Your task to perform on an android device: Open ESPN.com Image 0: 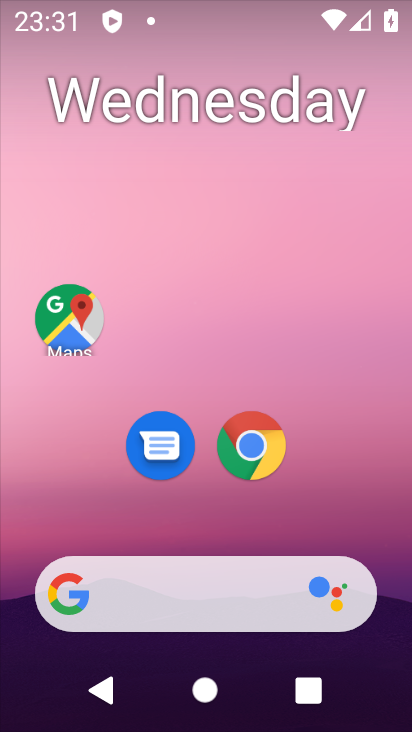
Step 0: click (251, 446)
Your task to perform on an android device: Open ESPN.com Image 1: 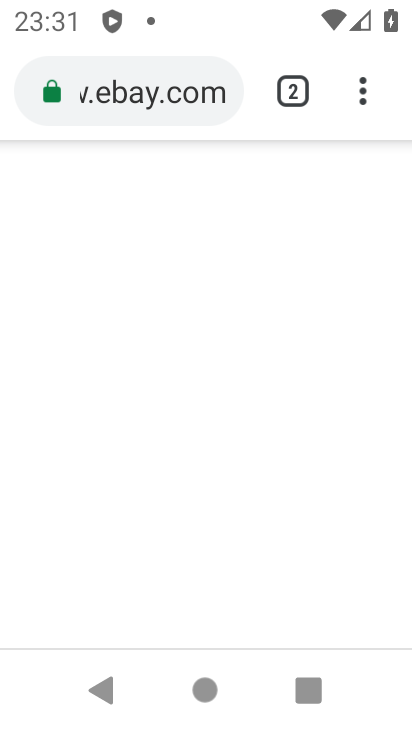
Step 1: click (293, 89)
Your task to perform on an android device: Open ESPN.com Image 2: 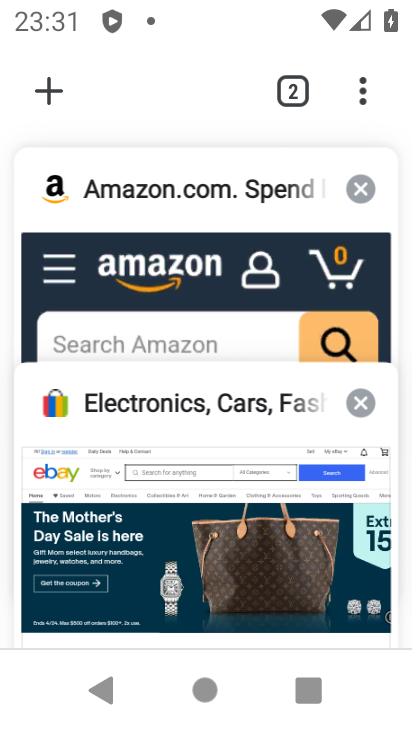
Step 2: click (39, 82)
Your task to perform on an android device: Open ESPN.com Image 3: 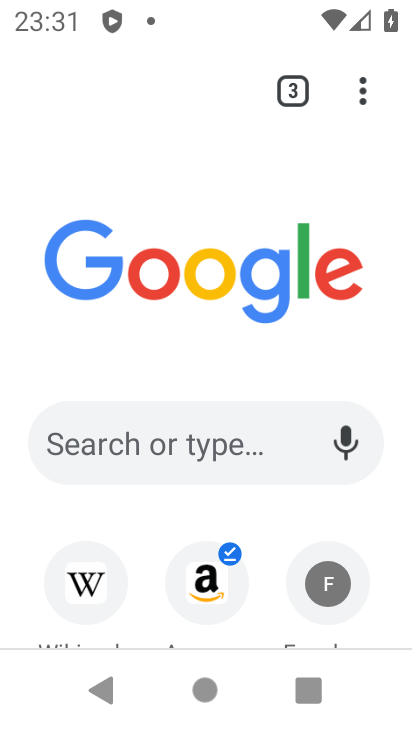
Step 3: drag from (195, 601) to (281, 119)
Your task to perform on an android device: Open ESPN.com Image 4: 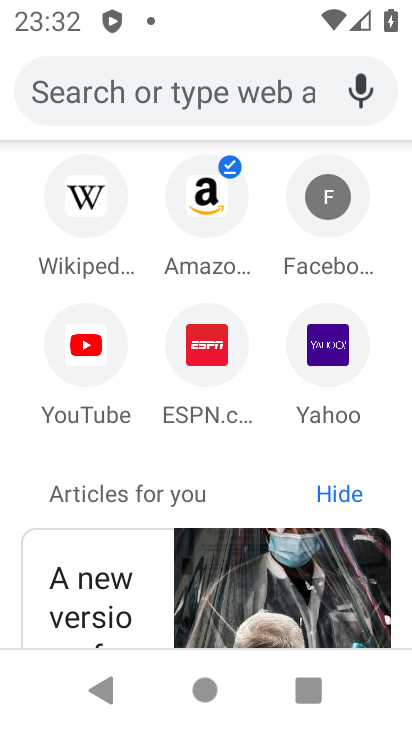
Step 4: click (196, 342)
Your task to perform on an android device: Open ESPN.com Image 5: 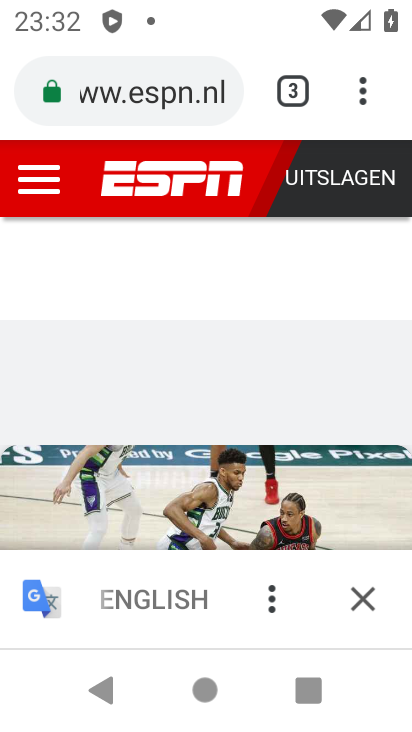
Step 5: task complete